Your task to perform on an android device: Open calendar and show me the first week of next month Image 0: 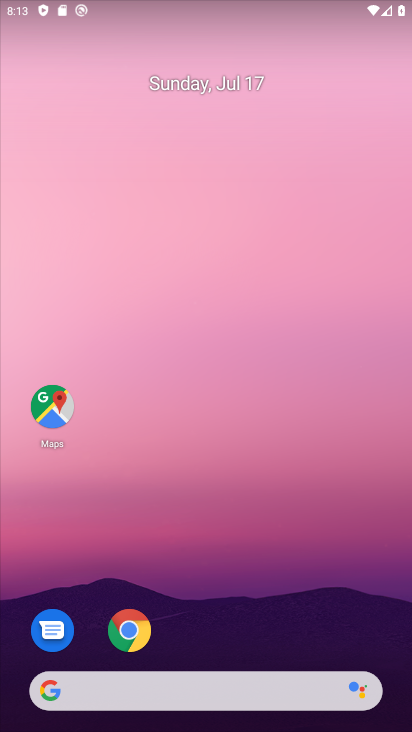
Step 0: drag from (320, 609) to (382, 115)
Your task to perform on an android device: Open calendar and show me the first week of next month Image 1: 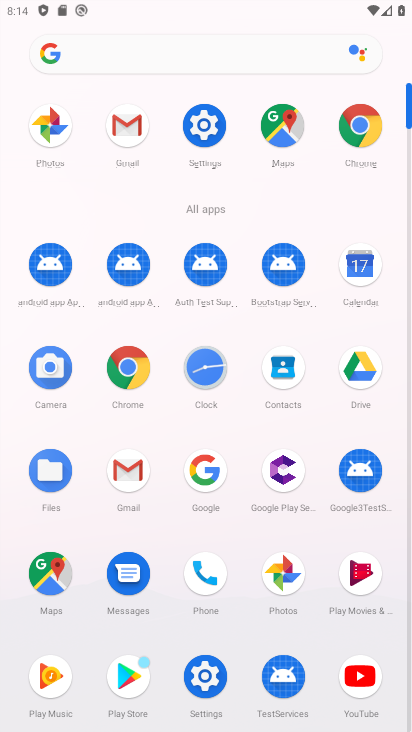
Step 1: click (361, 271)
Your task to perform on an android device: Open calendar and show me the first week of next month Image 2: 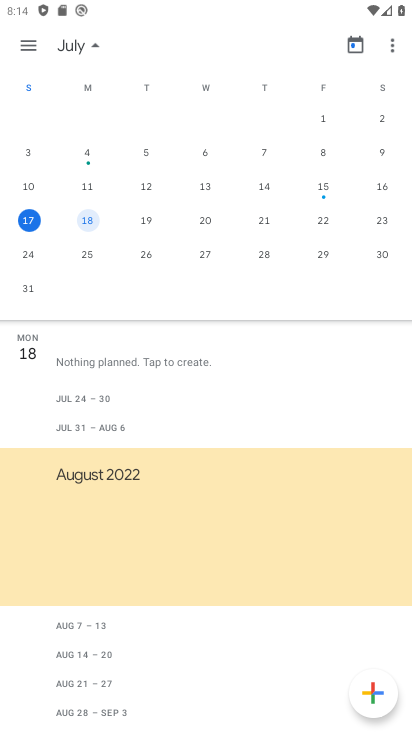
Step 2: click (94, 45)
Your task to perform on an android device: Open calendar and show me the first week of next month Image 3: 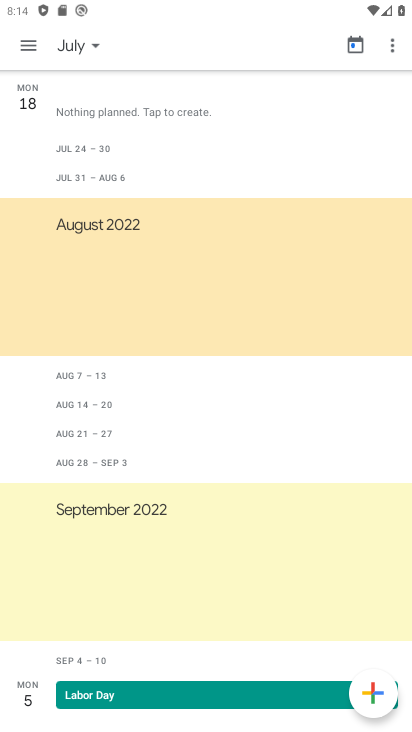
Step 3: click (94, 45)
Your task to perform on an android device: Open calendar and show me the first week of next month Image 4: 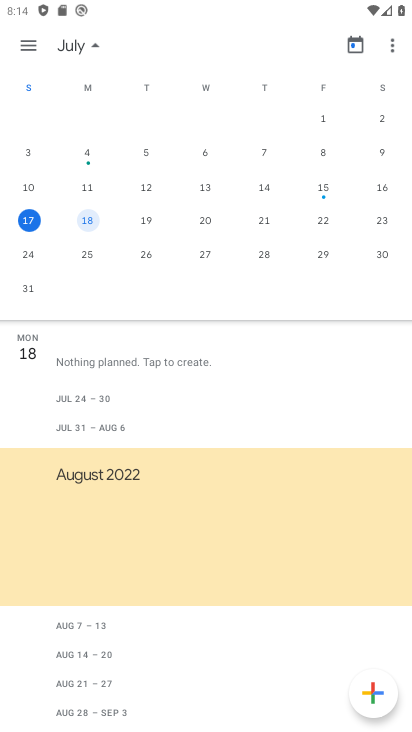
Step 4: task complete